Your task to perform on an android device: toggle show notifications on the lock screen Image 0: 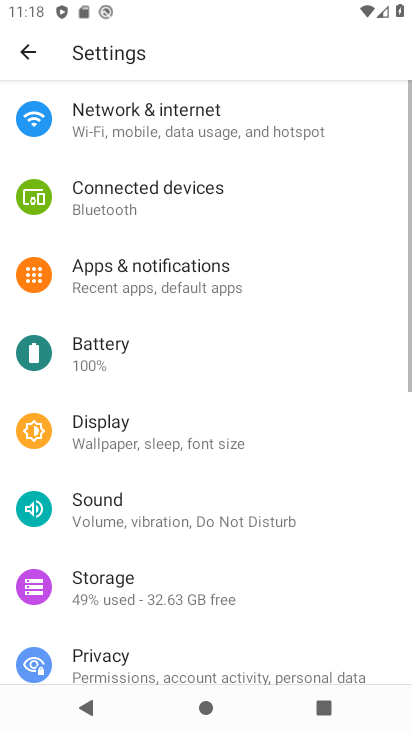
Step 0: press home button
Your task to perform on an android device: toggle show notifications on the lock screen Image 1: 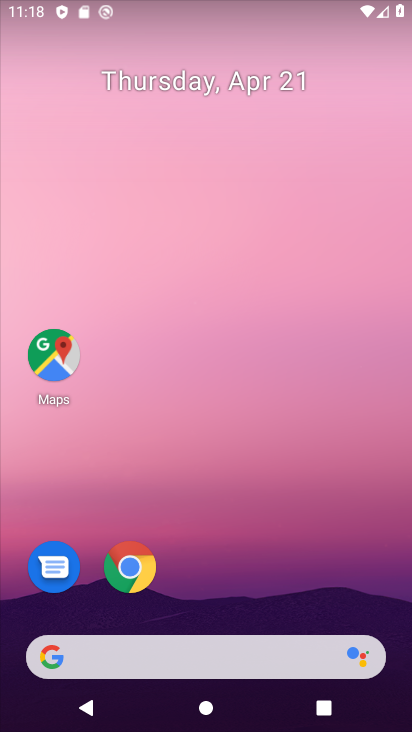
Step 1: drag from (347, 549) to (348, 161)
Your task to perform on an android device: toggle show notifications on the lock screen Image 2: 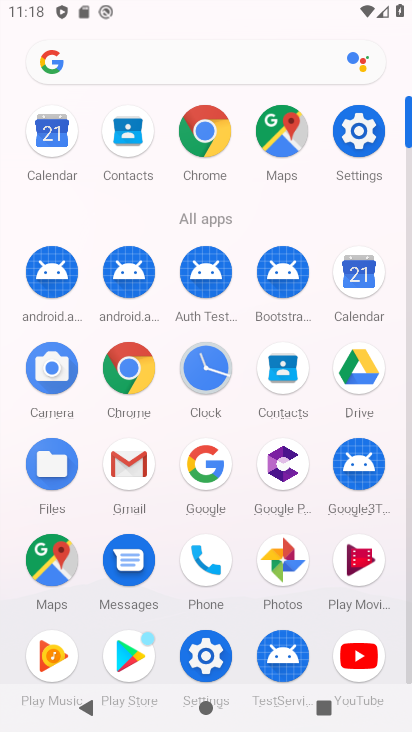
Step 2: click (351, 123)
Your task to perform on an android device: toggle show notifications on the lock screen Image 3: 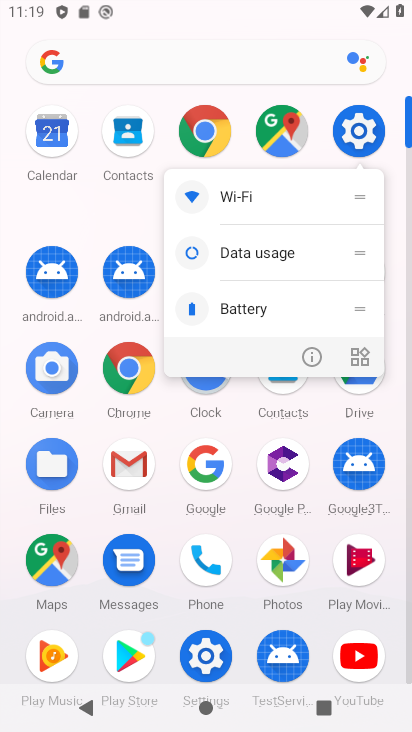
Step 3: click (348, 131)
Your task to perform on an android device: toggle show notifications on the lock screen Image 4: 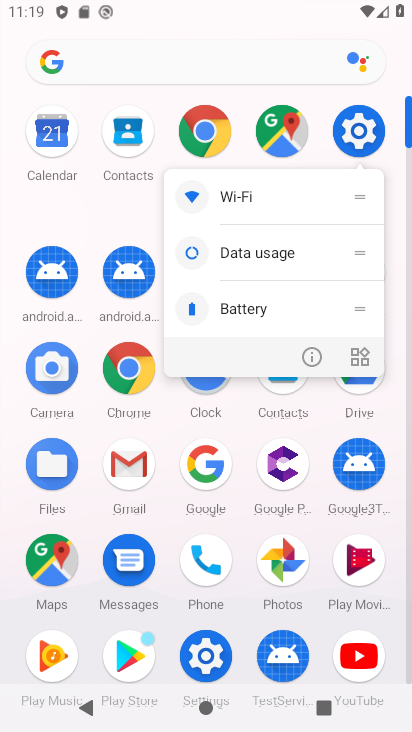
Step 4: click (363, 142)
Your task to perform on an android device: toggle show notifications on the lock screen Image 5: 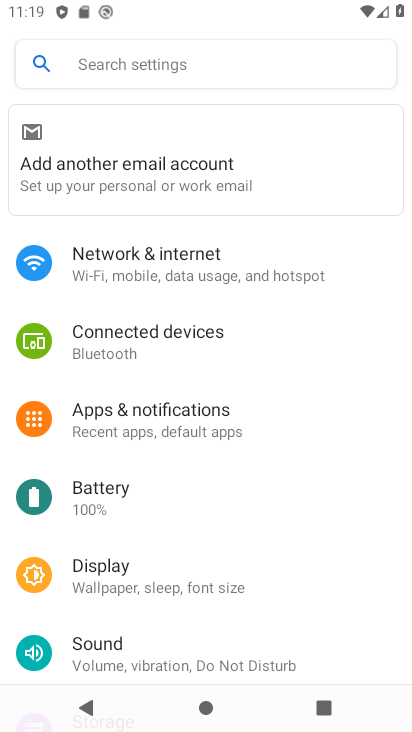
Step 5: drag from (225, 606) to (304, 286)
Your task to perform on an android device: toggle show notifications on the lock screen Image 6: 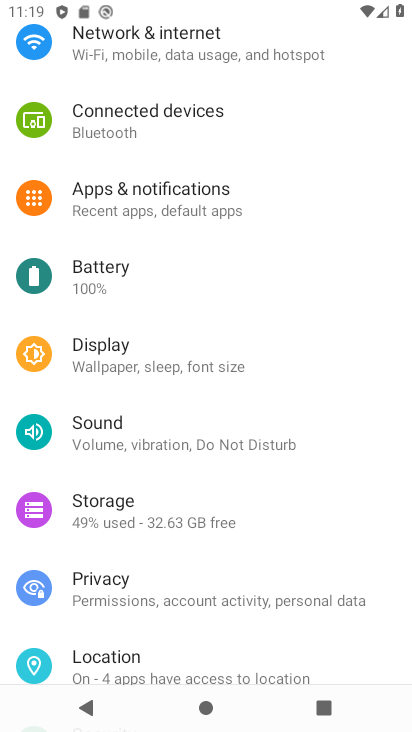
Step 6: drag from (291, 548) to (340, 287)
Your task to perform on an android device: toggle show notifications on the lock screen Image 7: 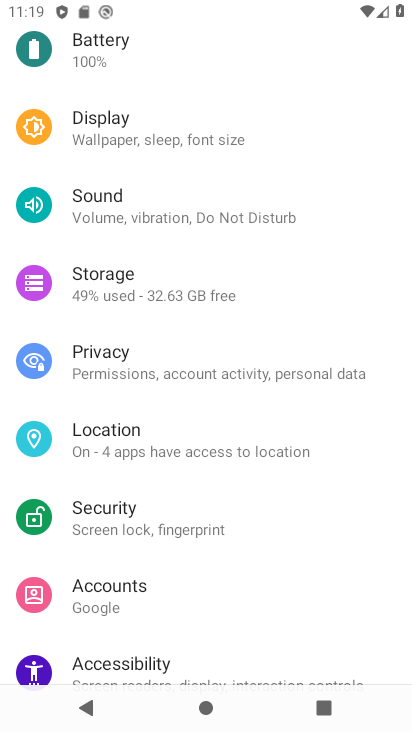
Step 7: drag from (304, 263) to (267, 592)
Your task to perform on an android device: toggle show notifications on the lock screen Image 8: 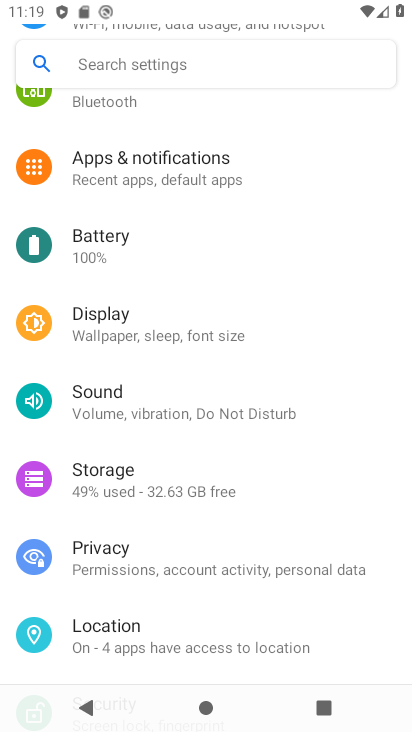
Step 8: click (179, 168)
Your task to perform on an android device: toggle show notifications on the lock screen Image 9: 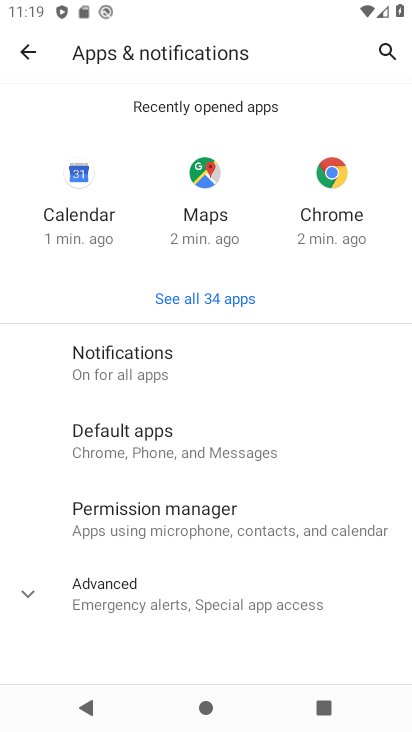
Step 9: click (85, 354)
Your task to perform on an android device: toggle show notifications on the lock screen Image 10: 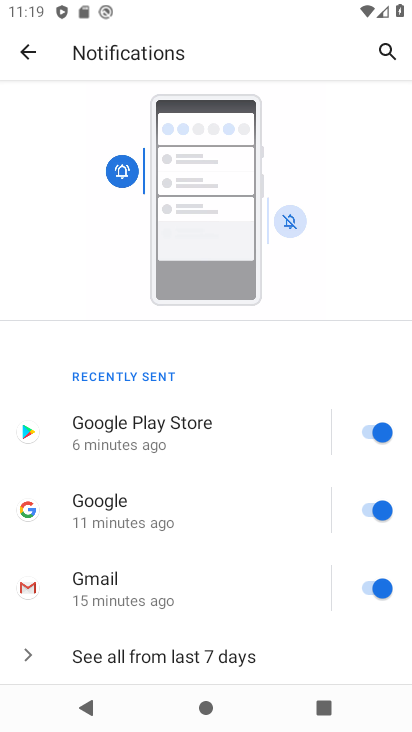
Step 10: drag from (243, 526) to (349, 185)
Your task to perform on an android device: toggle show notifications on the lock screen Image 11: 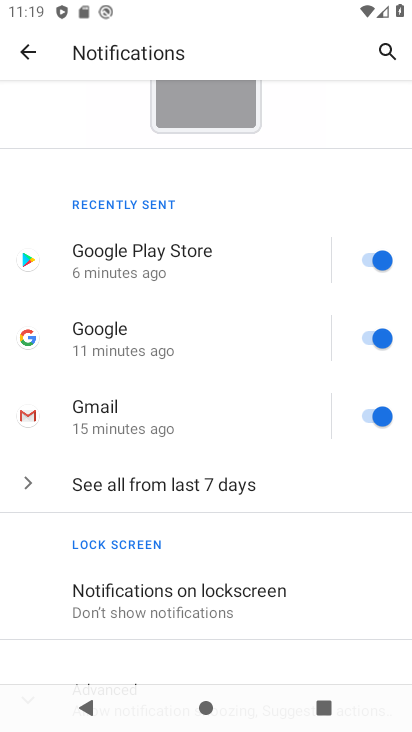
Step 11: click (204, 597)
Your task to perform on an android device: toggle show notifications on the lock screen Image 12: 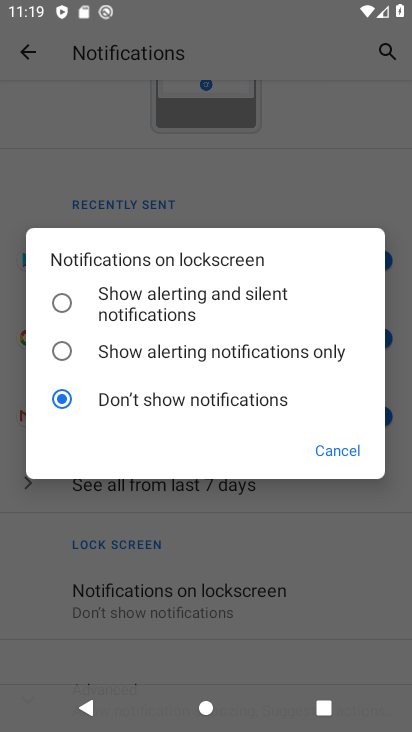
Step 12: click (95, 301)
Your task to perform on an android device: toggle show notifications on the lock screen Image 13: 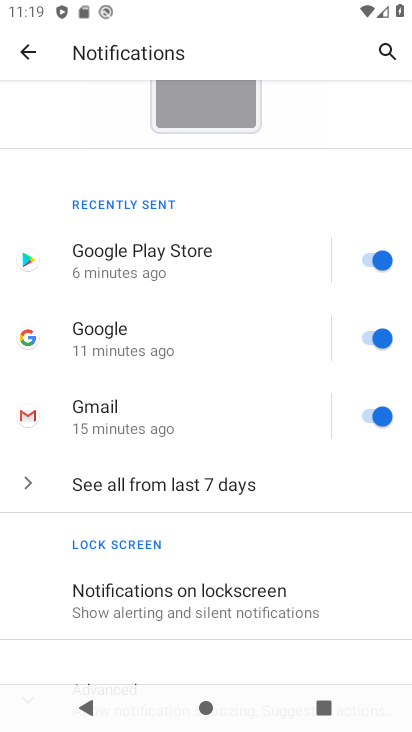
Step 13: task complete